Your task to perform on an android device: turn off sleep mode Image 0: 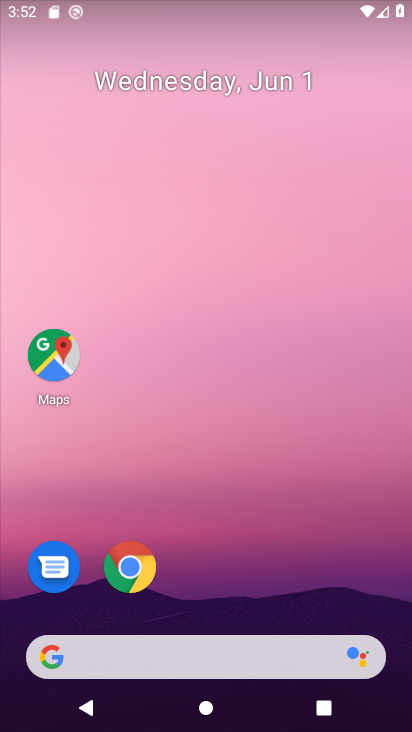
Step 0: drag from (238, 565) to (226, 21)
Your task to perform on an android device: turn off sleep mode Image 1: 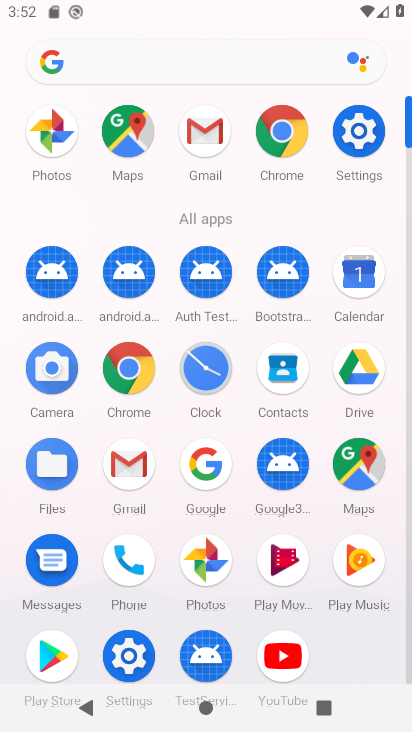
Step 1: click (350, 135)
Your task to perform on an android device: turn off sleep mode Image 2: 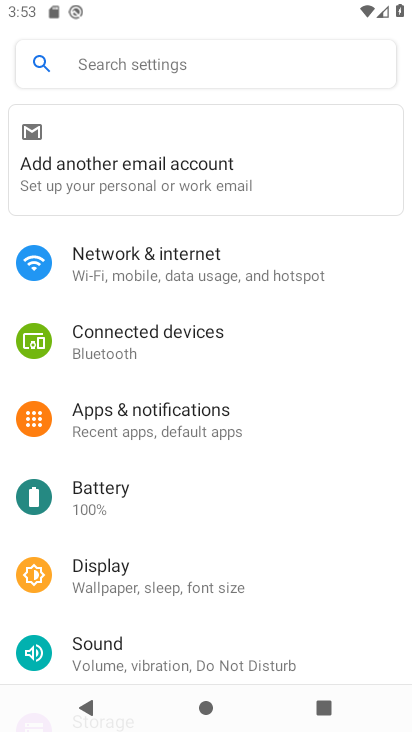
Step 2: click (114, 578)
Your task to perform on an android device: turn off sleep mode Image 3: 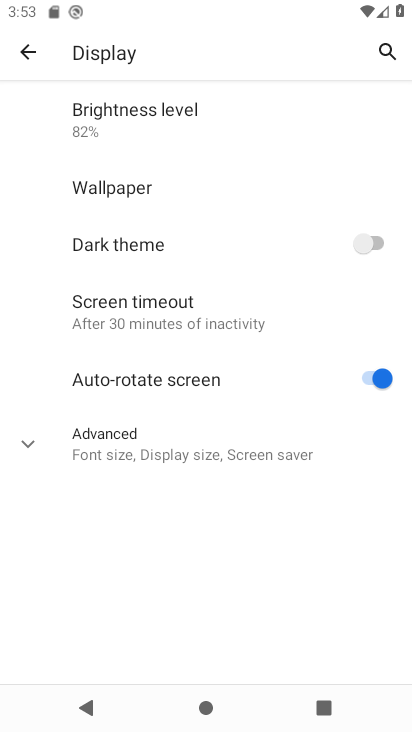
Step 3: click (149, 444)
Your task to perform on an android device: turn off sleep mode Image 4: 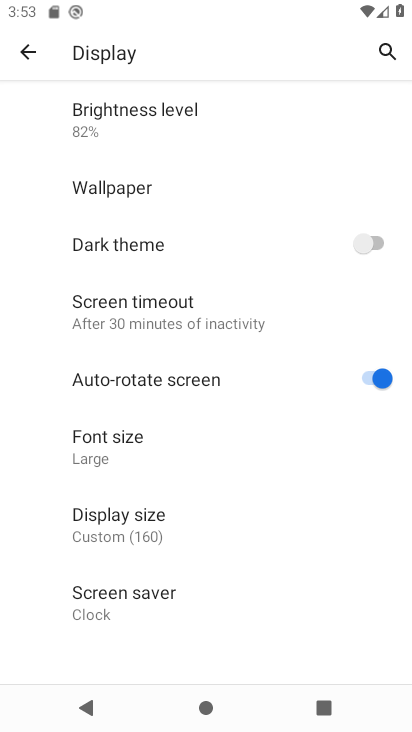
Step 4: click (33, 66)
Your task to perform on an android device: turn off sleep mode Image 5: 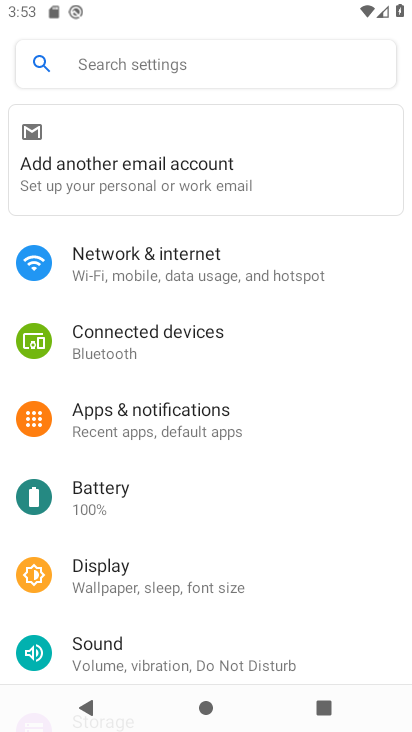
Step 5: task complete